Your task to perform on an android device: clear all cookies in the chrome app Image 0: 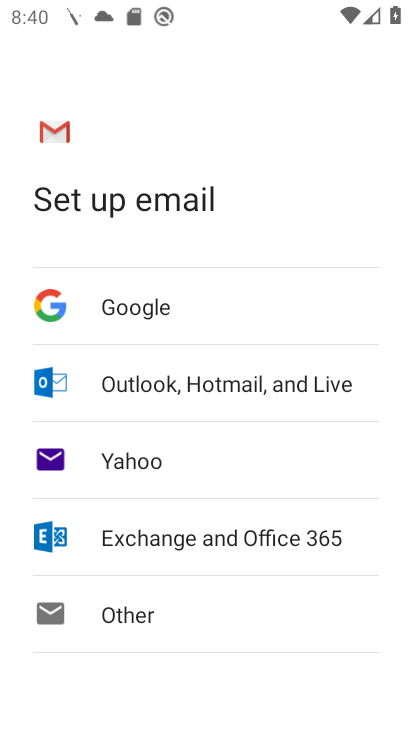
Step 0: press home button
Your task to perform on an android device: clear all cookies in the chrome app Image 1: 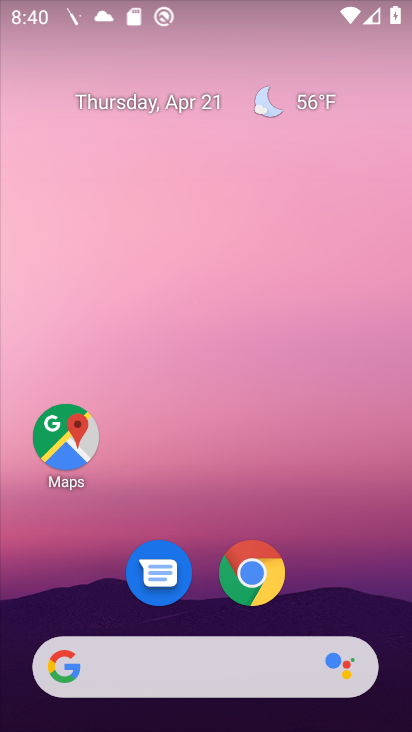
Step 1: click (257, 573)
Your task to perform on an android device: clear all cookies in the chrome app Image 2: 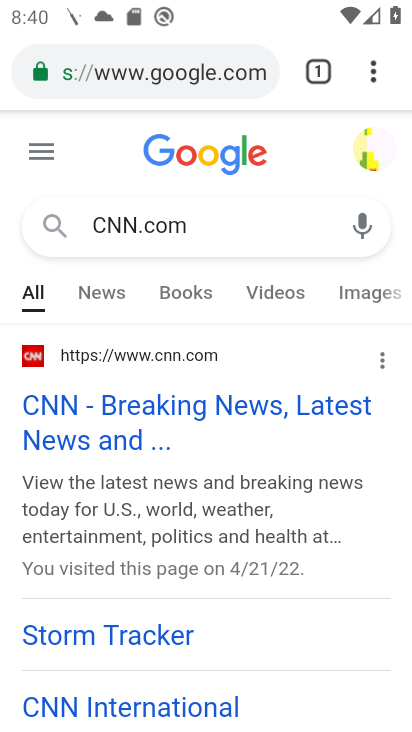
Step 2: click (378, 73)
Your task to perform on an android device: clear all cookies in the chrome app Image 3: 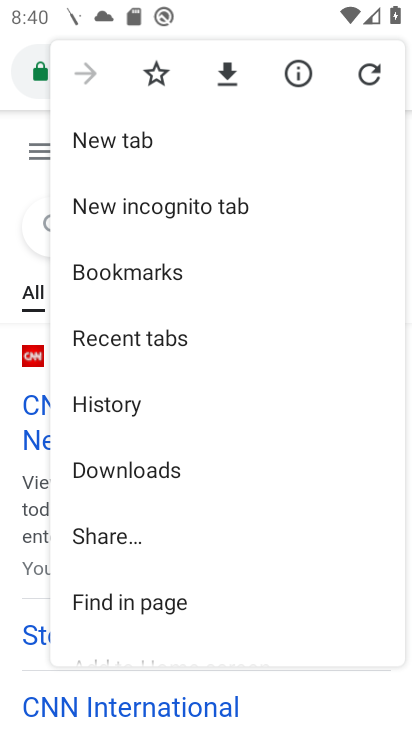
Step 3: drag from (197, 506) to (235, 369)
Your task to perform on an android device: clear all cookies in the chrome app Image 4: 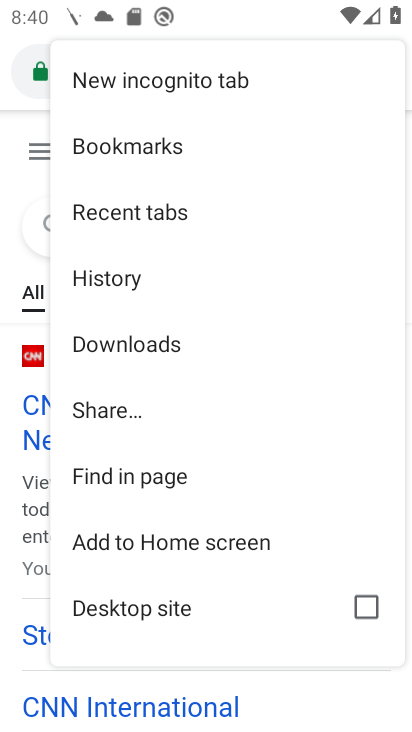
Step 4: drag from (208, 460) to (279, 342)
Your task to perform on an android device: clear all cookies in the chrome app Image 5: 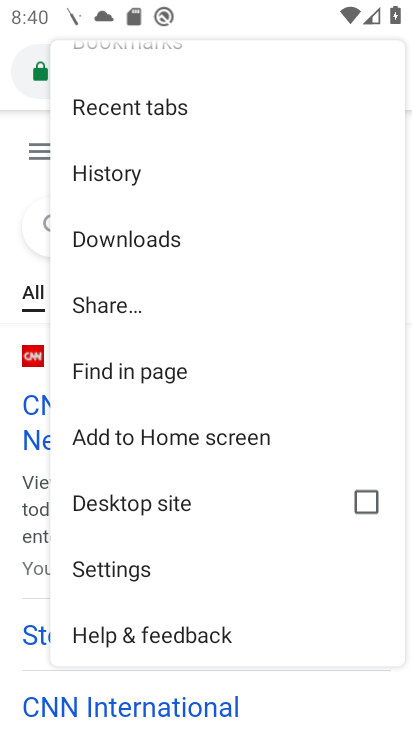
Step 5: click (142, 575)
Your task to perform on an android device: clear all cookies in the chrome app Image 6: 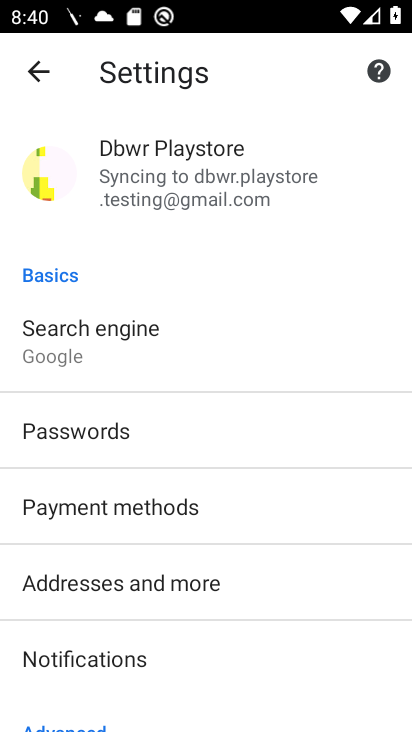
Step 6: drag from (168, 641) to (235, 540)
Your task to perform on an android device: clear all cookies in the chrome app Image 7: 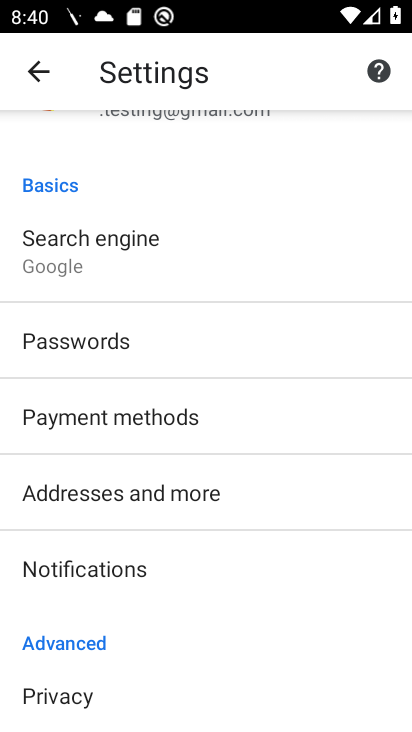
Step 7: drag from (179, 644) to (250, 545)
Your task to perform on an android device: clear all cookies in the chrome app Image 8: 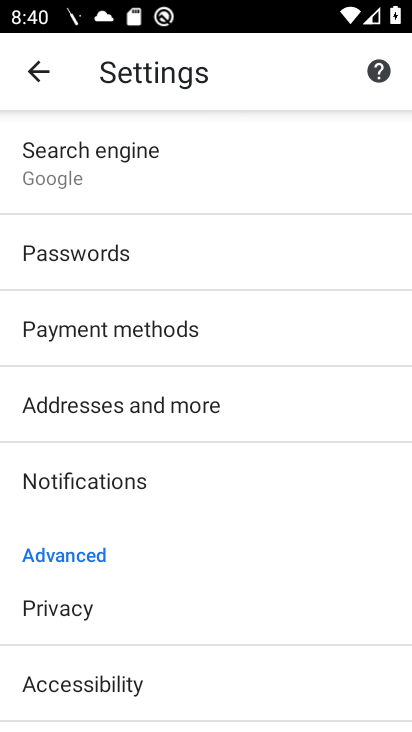
Step 8: click (79, 610)
Your task to perform on an android device: clear all cookies in the chrome app Image 9: 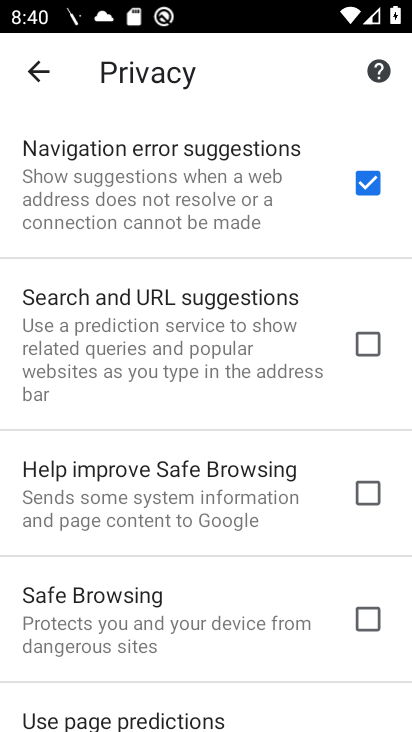
Step 9: drag from (168, 646) to (238, 473)
Your task to perform on an android device: clear all cookies in the chrome app Image 10: 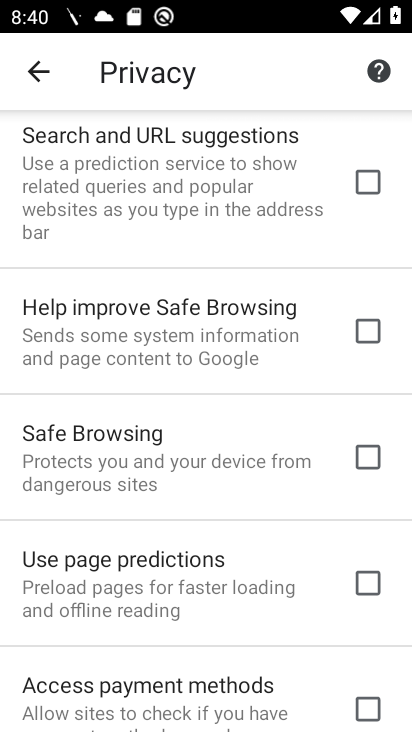
Step 10: drag from (175, 635) to (255, 510)
Your task to perform on an android device: clear all cookies in the chrome app Image 11: 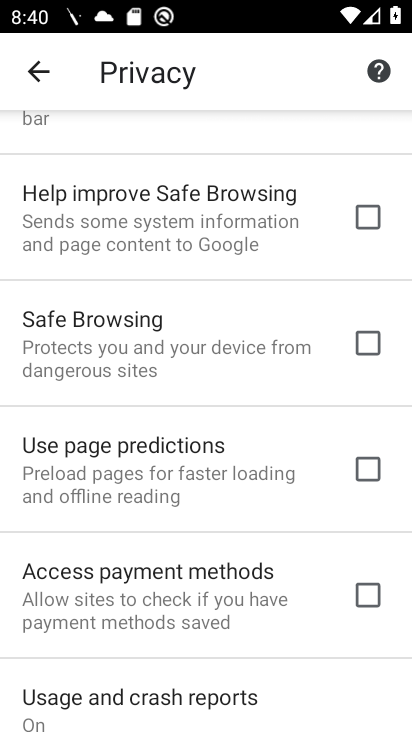
Step 11: drag from (177, 655) to (246, 508)
Your task to perform on an android device: clear all cookies in the chrome app Image 12: 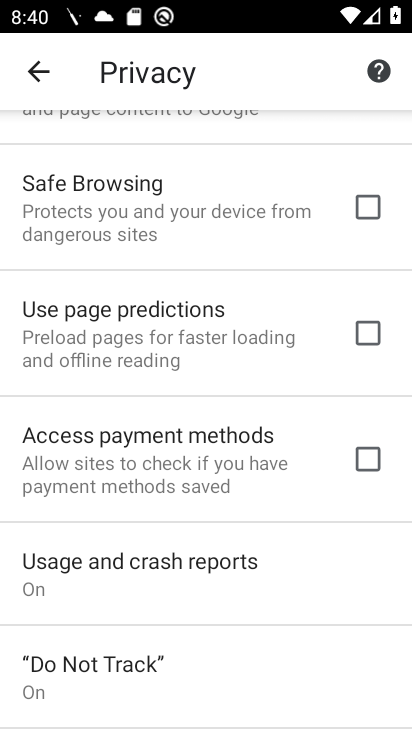
Step 12: drag from (137, 610) to (187, 476)
Your task to perform on an android device: clear all cookies in the chrome app Image 13: 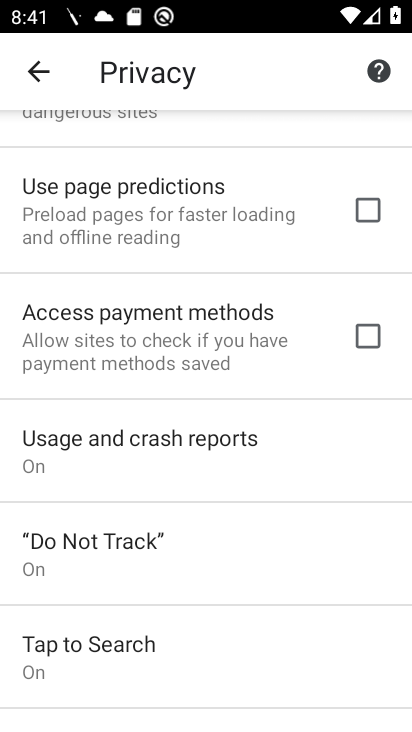
Step 13: drag from (143, 572) to (212, 476)
Your task to perform on an android device: clear all cookies in the chrome app Image 14: 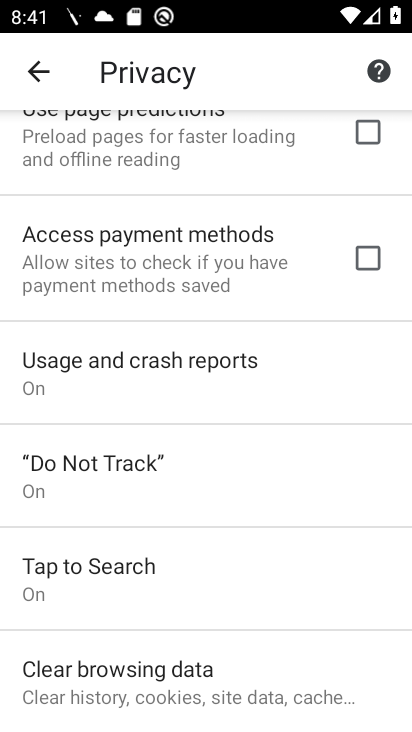
Step 14: click (118, 668)
Your task to perform on an android device: clear all cookies in the chrome app Image 15: 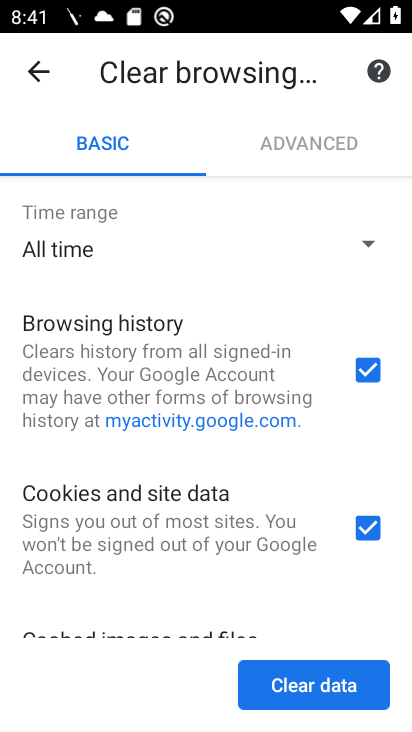
Step 15: click (367, 373)
Your task to perform on an android device: clear all cookies in the chrome app Image 16: 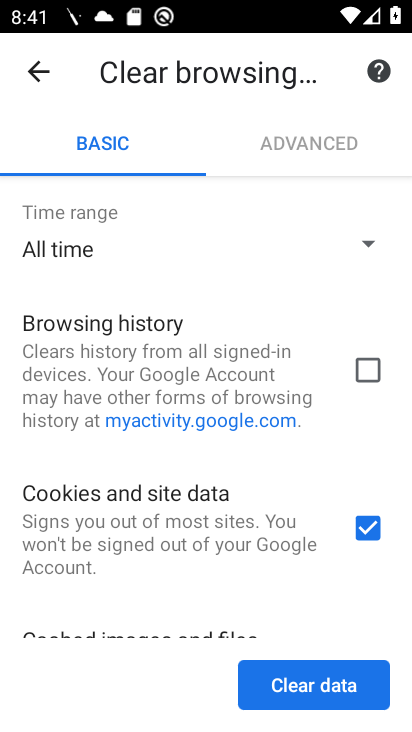
Step 16: click (307, 696)
Your task to perform on an android device: clear all cookies in the chrome app Image 17: 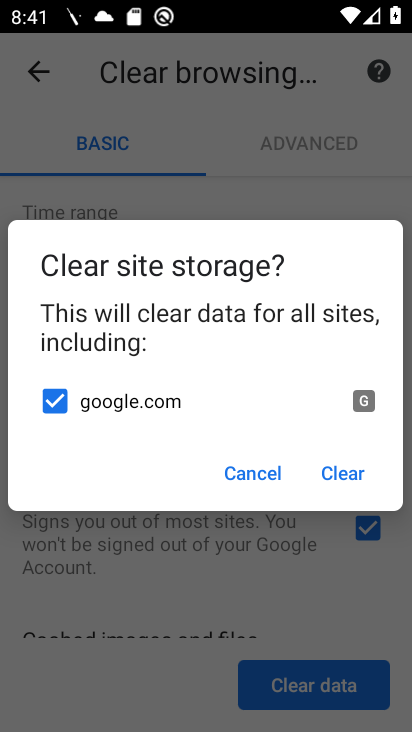
Step 17: click (367, 468)
Your task to perform on an android device: clear all cookies in the chrome app Image 18: 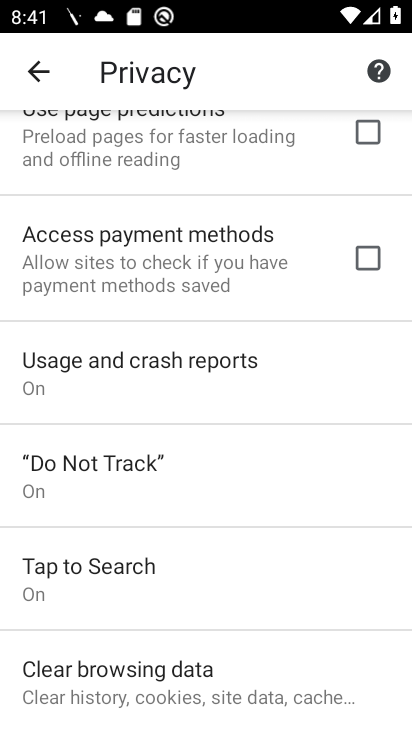
Step 18: task complete